Your task to perform on an android device: Open calendar and show me the second week of next month Image 0: 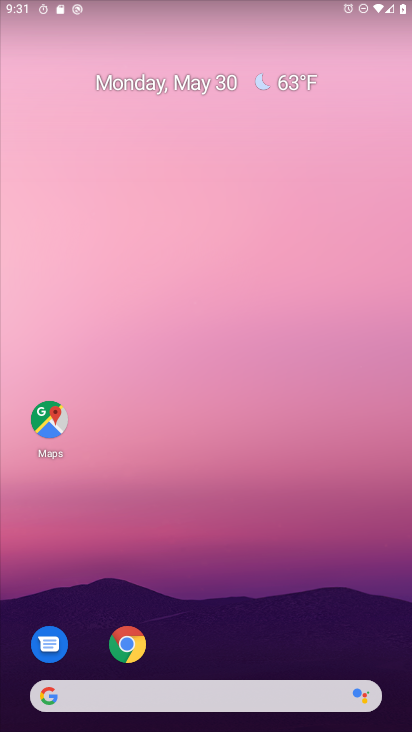
Step 0: drag from (188, 638) to (218, 45)
Your task to perform on an android device: Open calendar and show me the second week of next month Image 1: 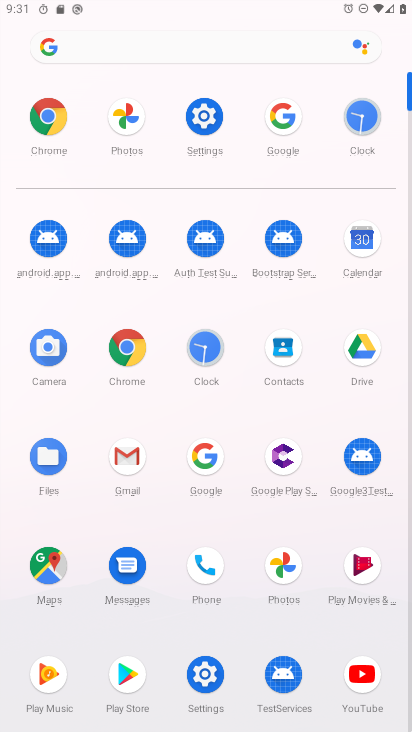
Step 1: click (364, 239)
Your task to perform on an android device: Open calendar and show me the second week of next month Image 2: 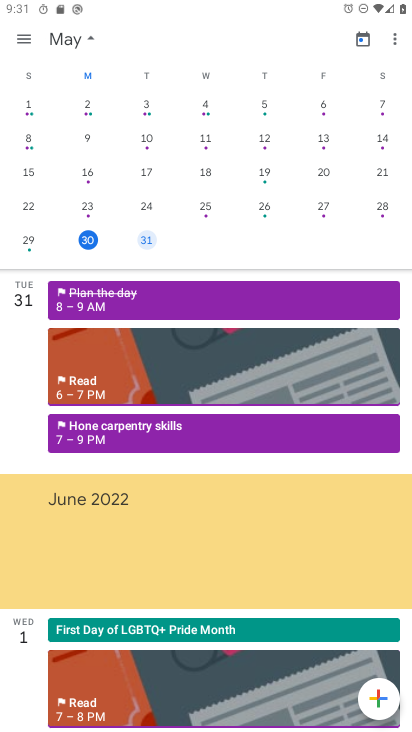
Step 2: drag from (383, 244) to (15, 242)
Your task to perform on an android device: Open calendar and show me the second week of next month Image 3: 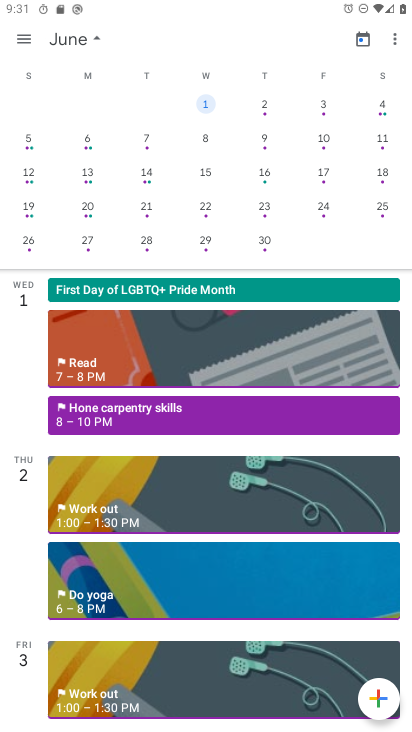
Step 3: click (207, 137)
Your task to perform on an android device: Open calendar and show me the second week of next month Image 4: 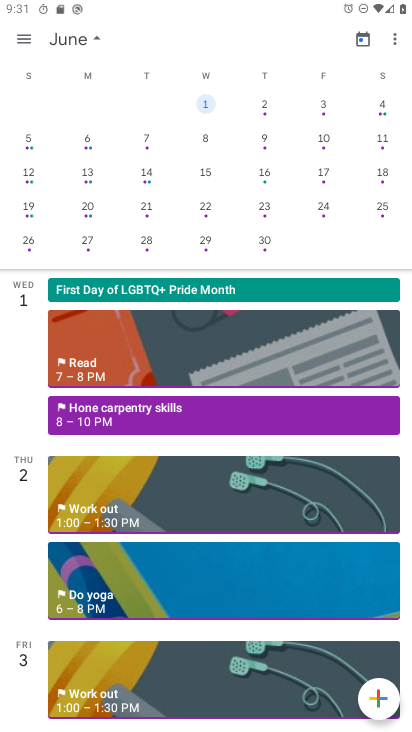
Step 4: click (209, 139)
Your task to perform on an android device: Open calendar and show me the second week of next month Image 5: 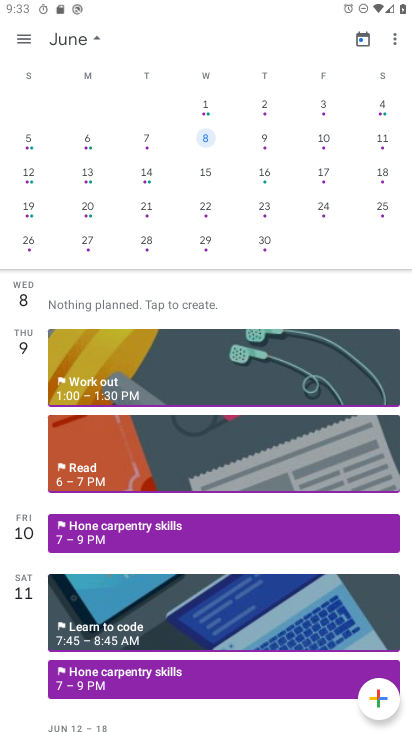
Step 5: task complete